Your task to perform on an android device: delete browsing data in the chrome app Image 0: 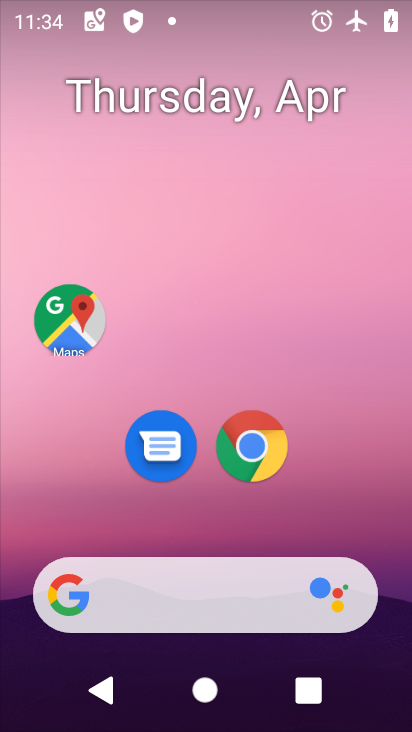
Step 0: drag from (335, 14) to (370, 400)
Your task to perform on an android device: delete browsing data in the chrome app Image 1: 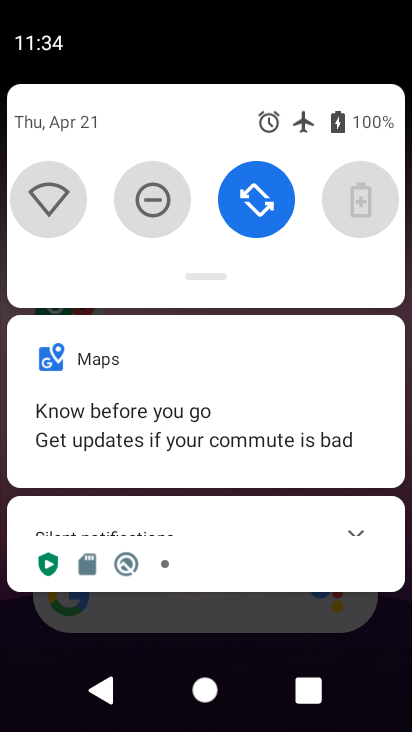
Step 1: drag from (312, 231) to (338, 465)
Your task to perform on an android device: delete browsing data in the chrome app Image 2: 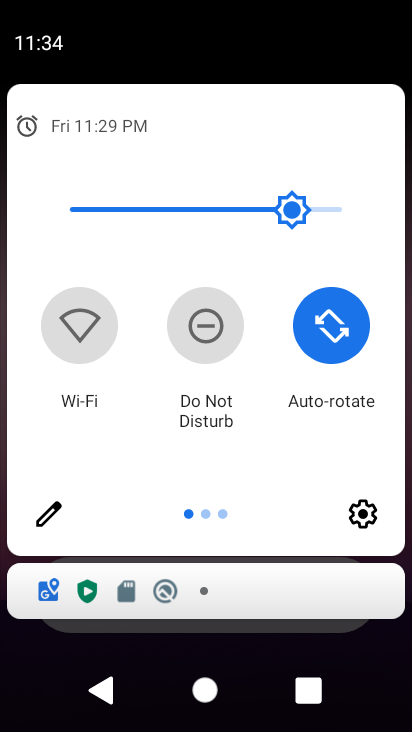
Step 2: drag from (395, 337) to (13, 319)
Your task to perform on an android device: delete browsing data in the chrome app Image 3: 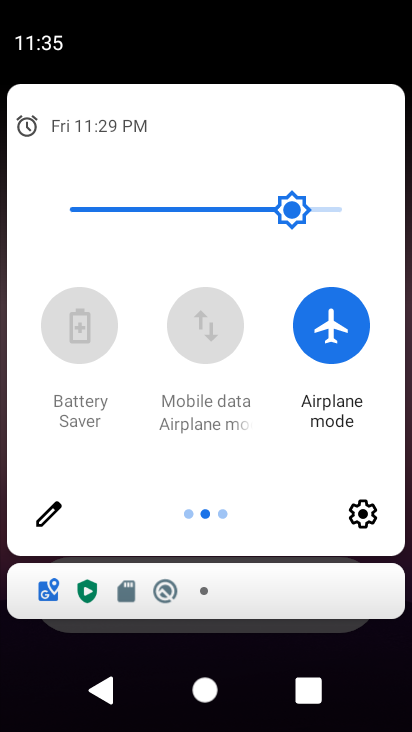
Step 3: click (327, 341)
Your task to perform on an android device: delete browsing data in the chrome app Image 4: 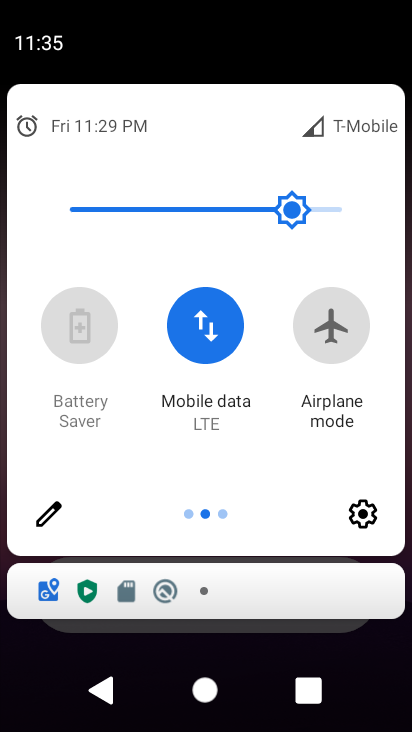
Step 4: click (383, 630)
Your task to perform on an android device: delete browsing data in the chrome app Image 5: 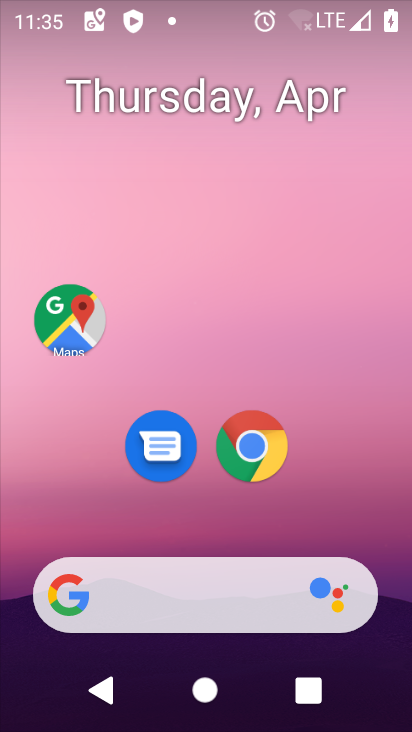
Step 5: click (251, 446)
Your task to perform on an android device: delete browsing data in the chrome app Image 6: 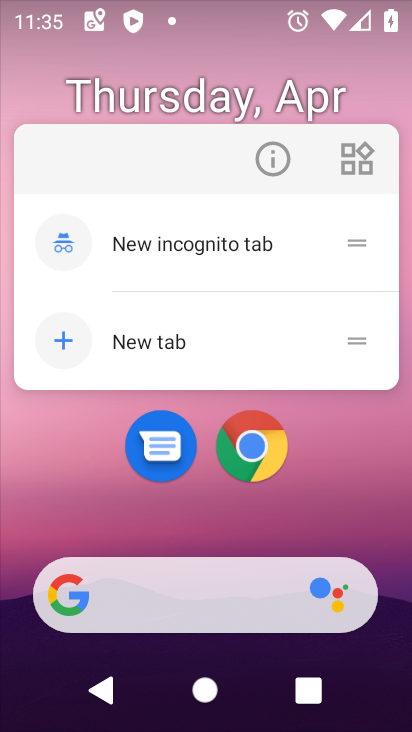
Step 6: click (251, 446)
Your task to perform on an android device: delete browsing data in the chrome app Image 7: 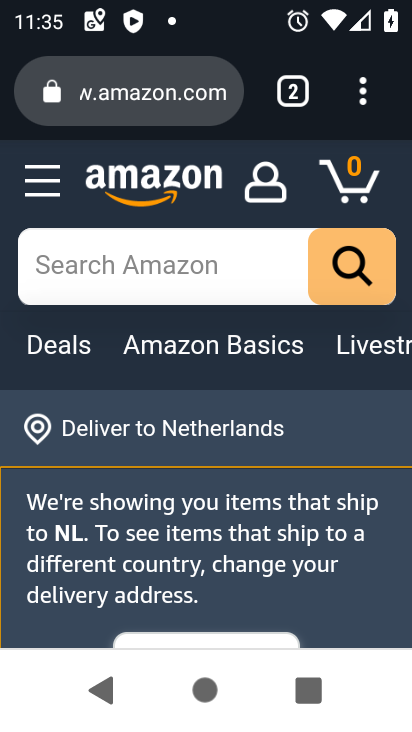
Step 7: drag from (359, 107) to (134, 204)
Your task to perform on an android device: delete browsing data in the chrome app Image 8: 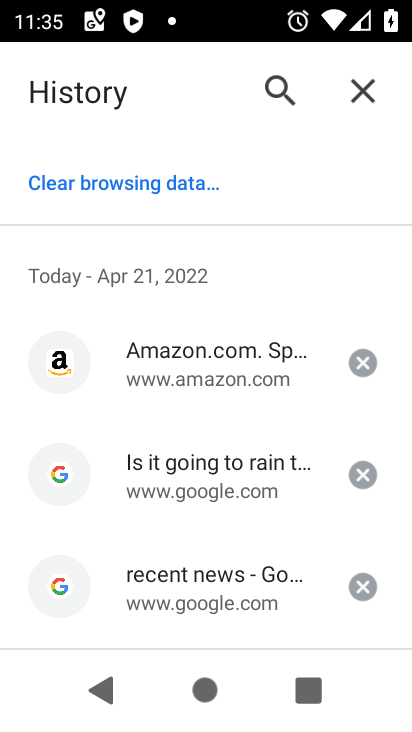
Step 8: click (136, 184)
Your task to perform on an android device: delete browsing data in the chrome app Image 9: 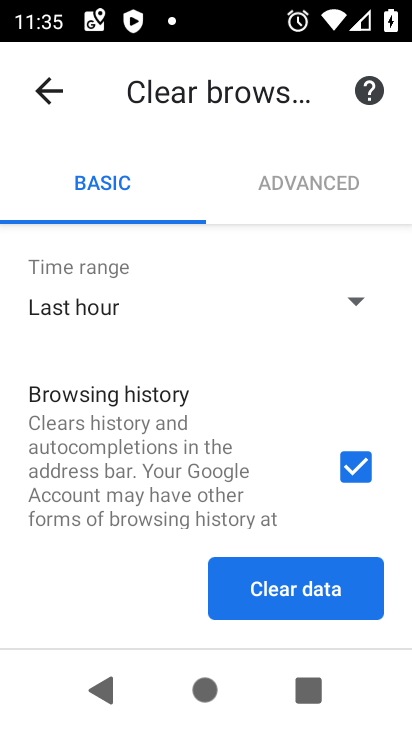
Step 9: click (310, 592)
Your task to perform on an android device: delete browsing data in the chrome app Image 10: 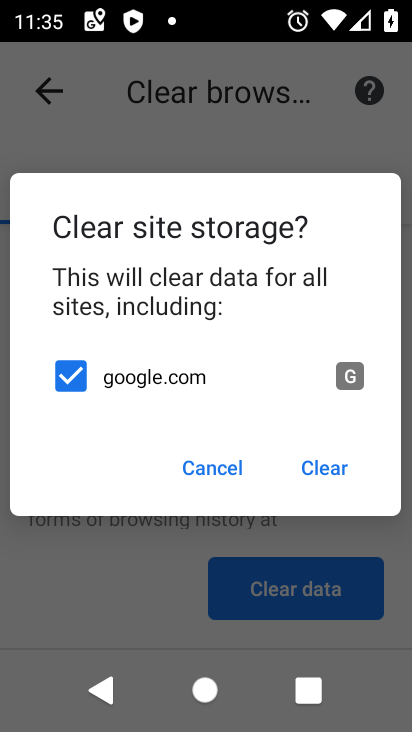
Step 10: click (319, 461)
Your task to perform on an android device: delete browsing data in the chrome app Image 11: 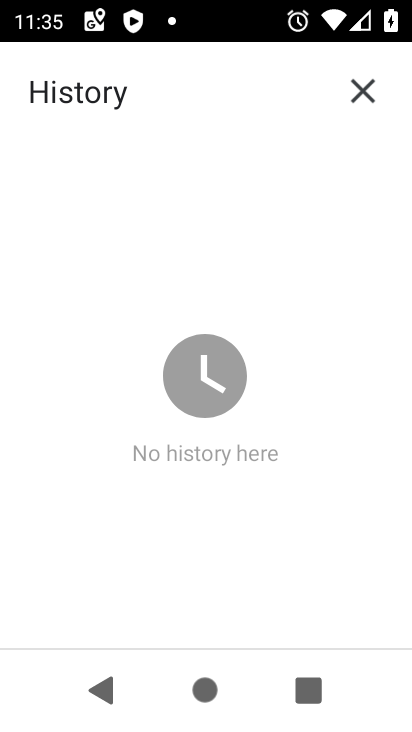
Step 11: task complete